Your task to perform on an android device: Open Android settings Image 0: 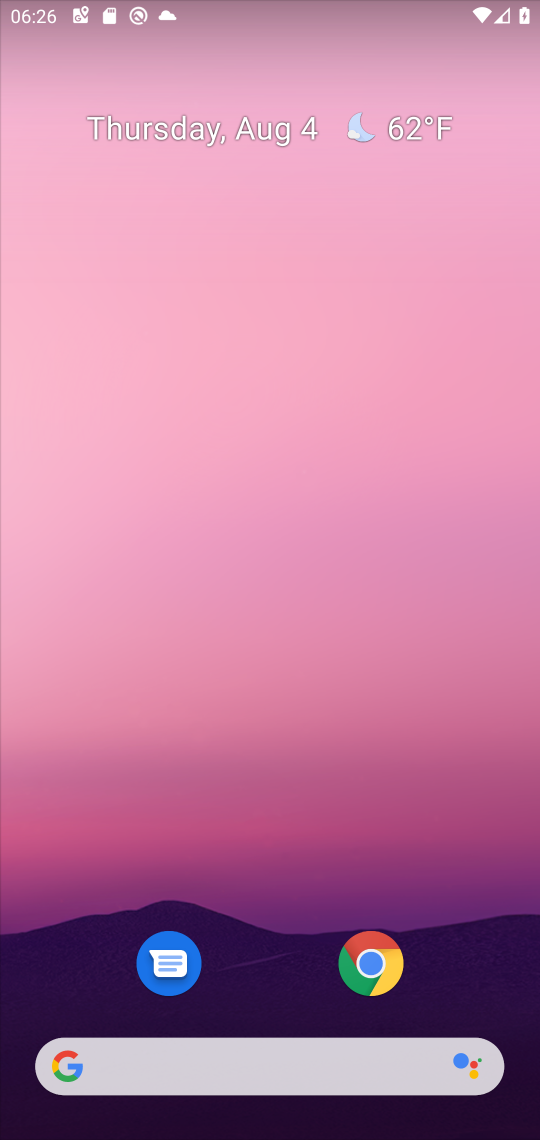
Step 0: drag from (298, 908) to (228, 145)
Your task to perform on an android device: Open Android settings Image 1: 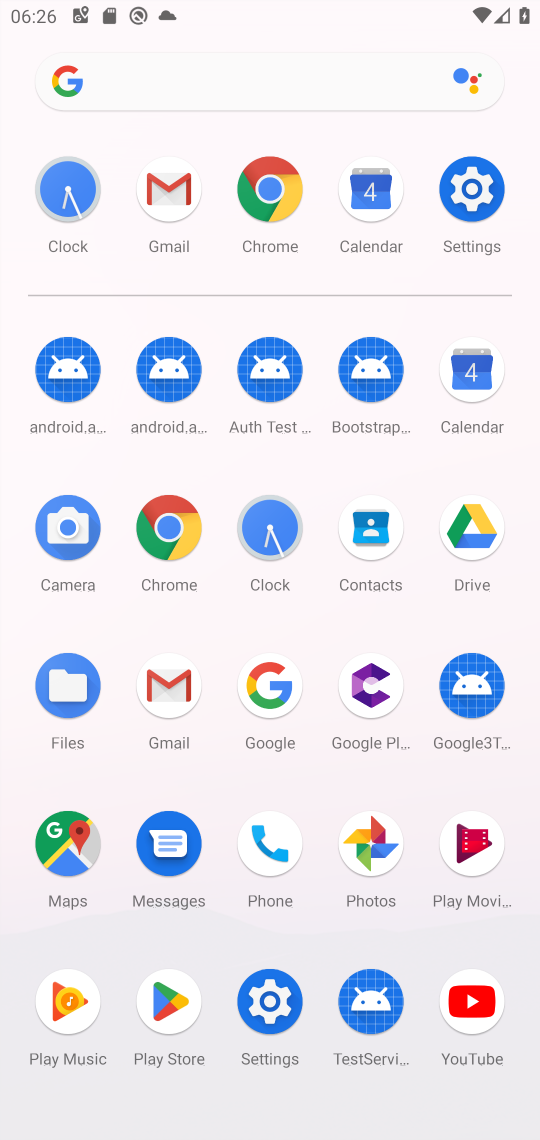
Step 1: click (479, 187)
Your task to perform on an android device: Open Android settings Image 2: 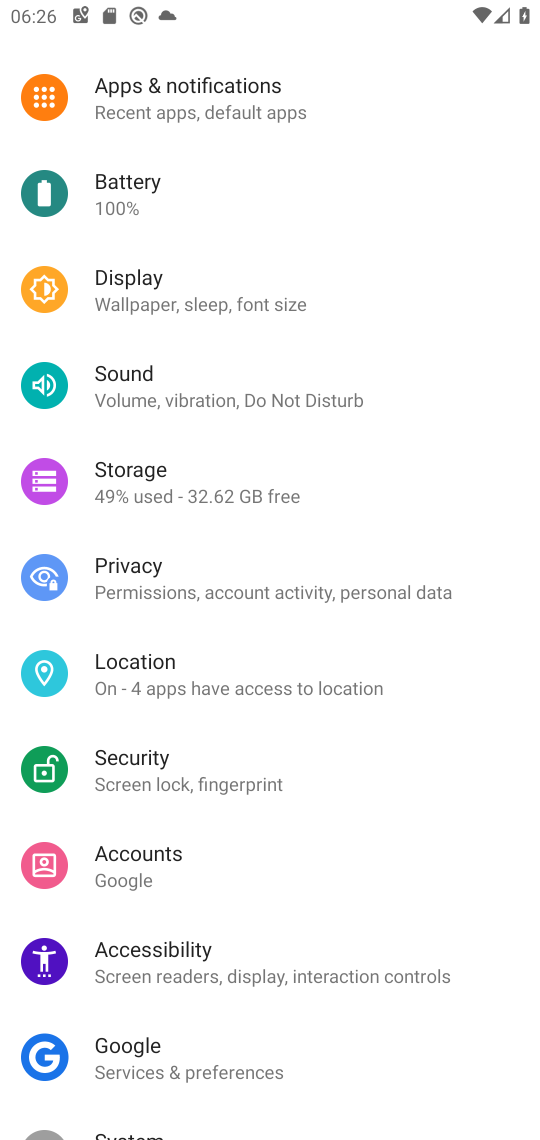
Step 2: drag from (298, 850) to (282, 170)
Your task to perform on an android device: Open Android settings Image 3: 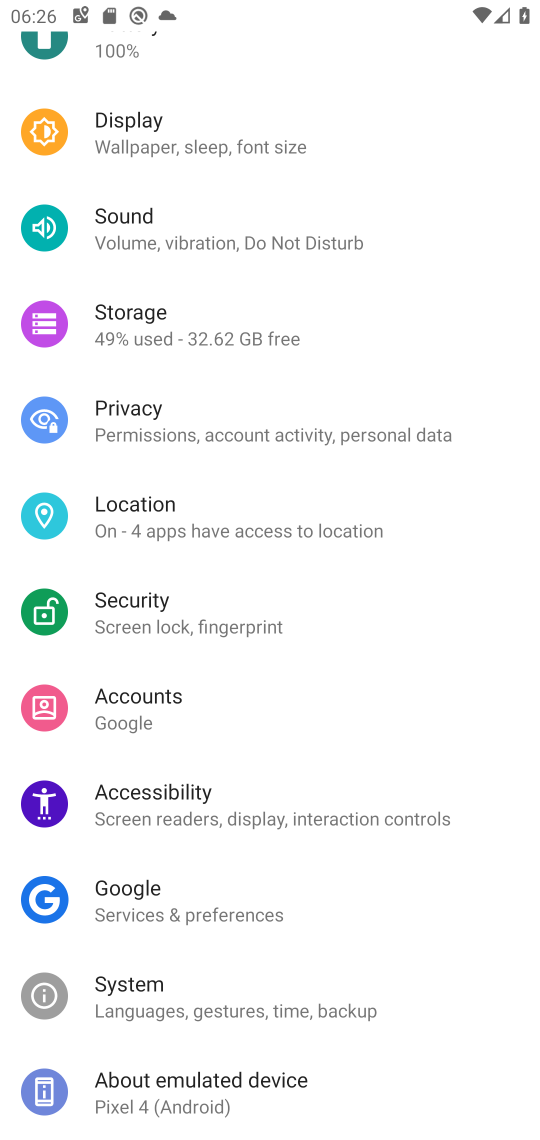
Step 3: click (217, 1076)
Your task to perform on an android device: Open Android settings Image 4: 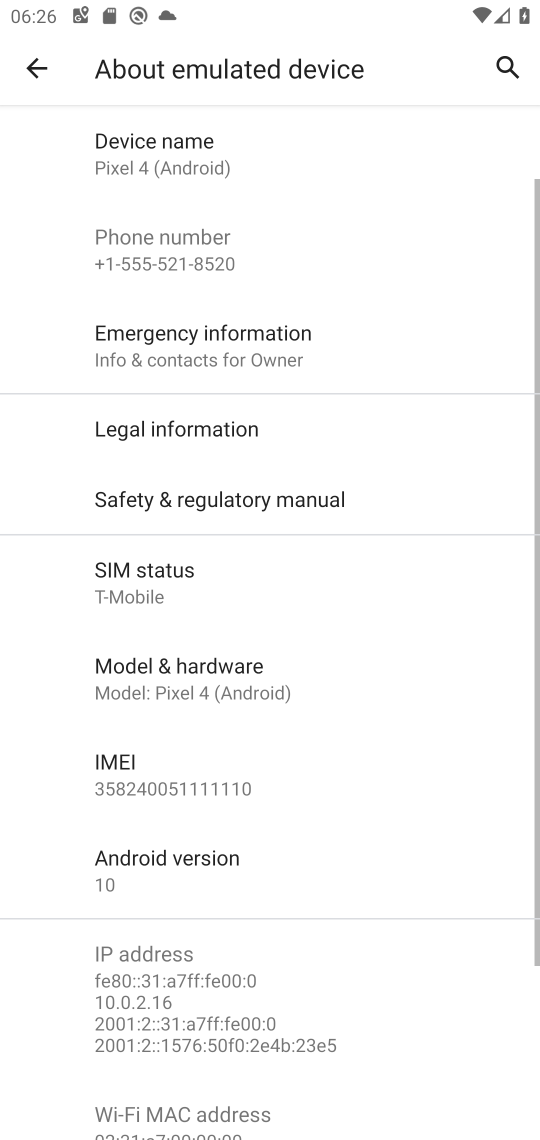
Step 4: click (161, 869)
Your task to perform on an android device: Open Android settings Image 5: 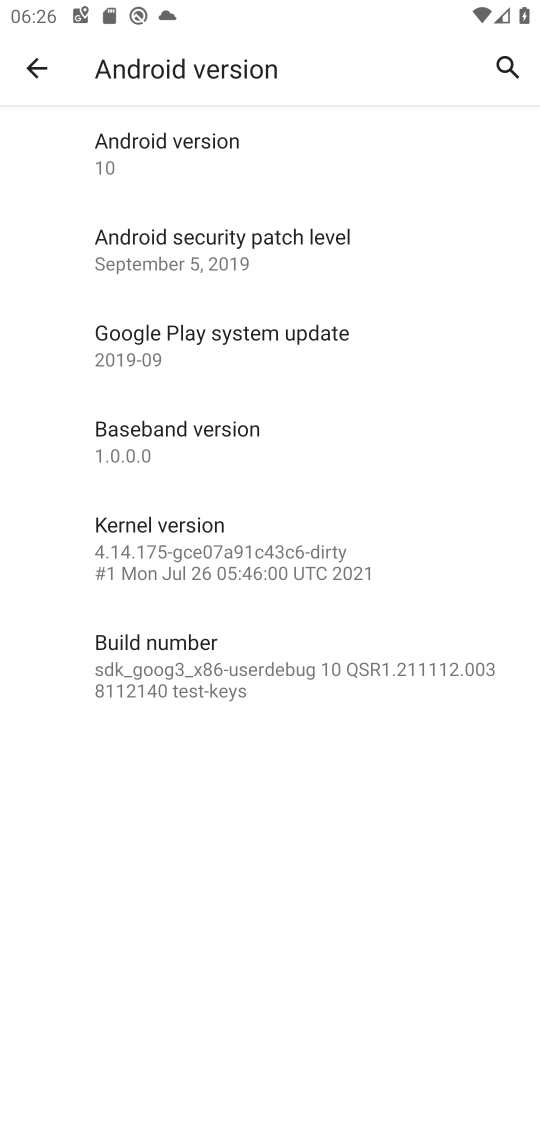
Step 5: task complete